Your task to perform on an android device: What is the news today? Image 0: 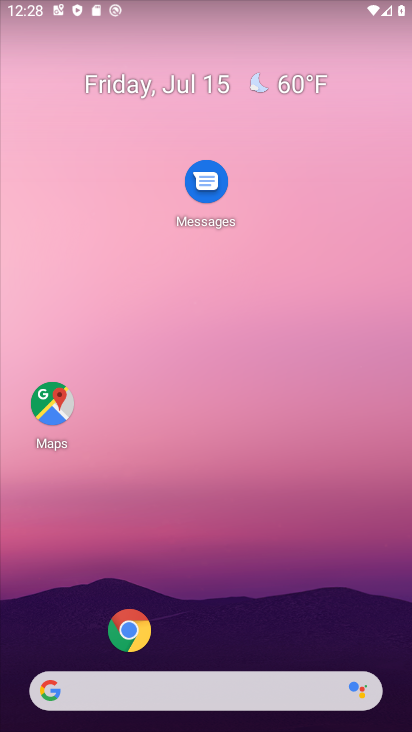
Step 0: drag from (147, 285) to (189, 85)
Your task to perform on an android device: What is the news today? Image 1: 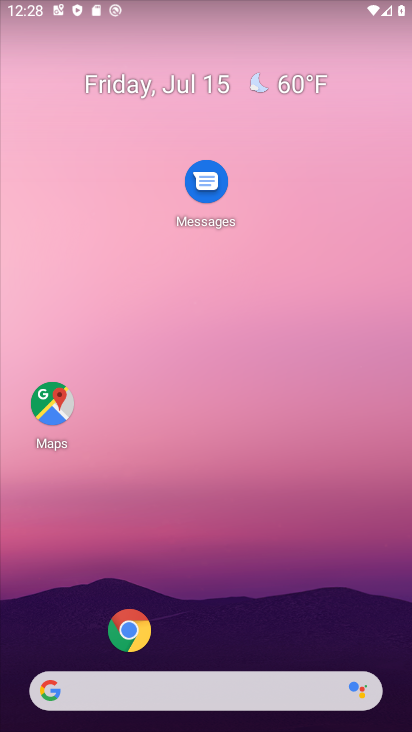
Step 1: click (126, 696)
Your task to perform on an android device: What is the news today? Image 2: 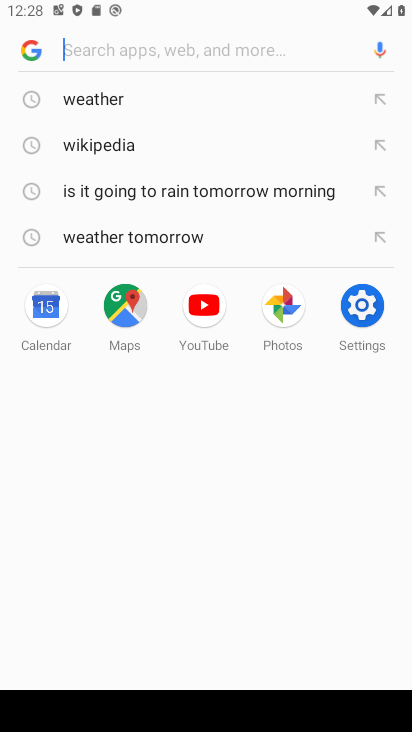
Step 2: type "What is the news today?"
Your task to perform on an android device: What is the news today? Image 3: 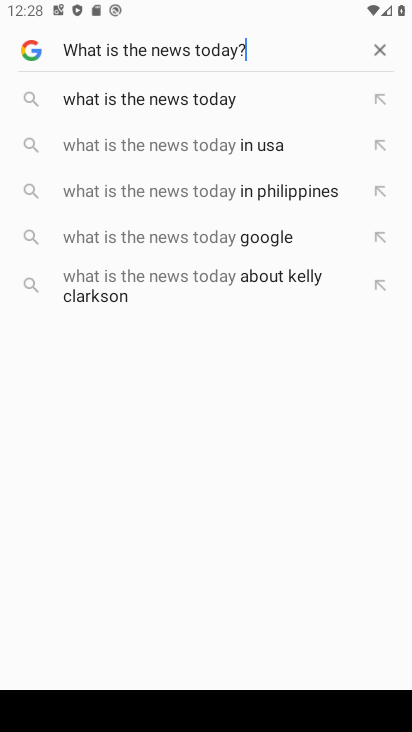
Step 3: type ""
Your task to perform on an android device: What is the news today? Image 4: 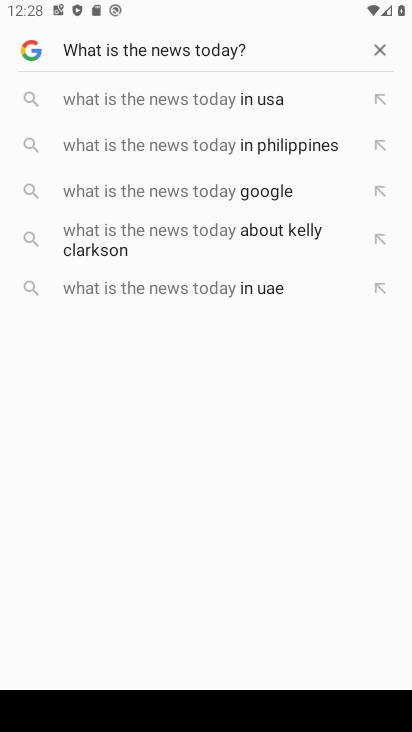
Step 4: type ""
Your task to perform on an android device: What is the news today? Image 5: 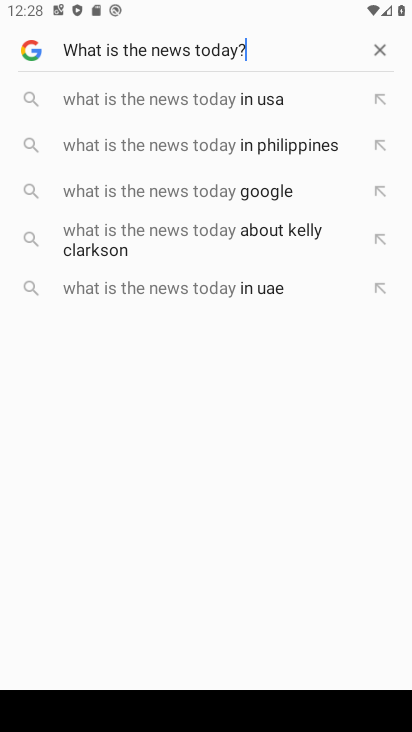
Step 5: type ""
Your task to perform on an android device: What is the news today? Image 6: 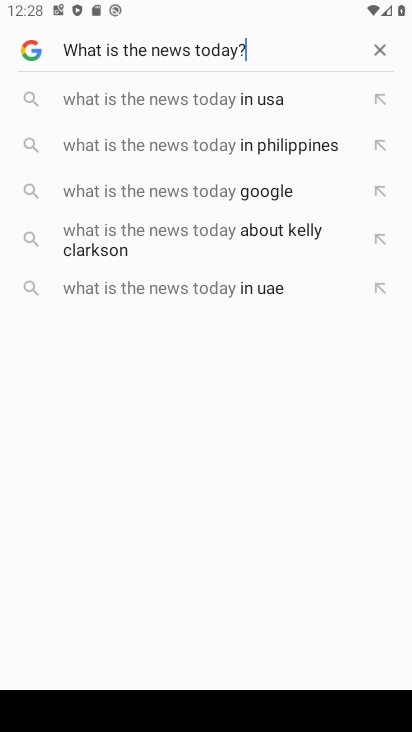
Step 6: task complete